Your task to perform on an android device: Open calendar and show me the third week of next month Image 0: 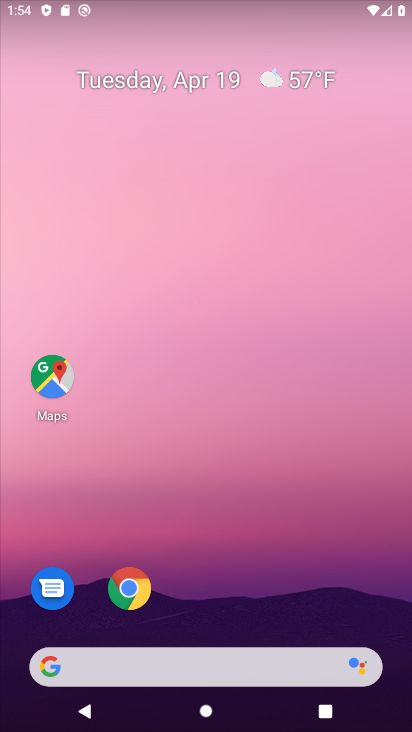
Step 0: drag from (318, 626) to (324, 104)
Your task to perform on an android device: Open calendar and show me the third week of next month Image 1: 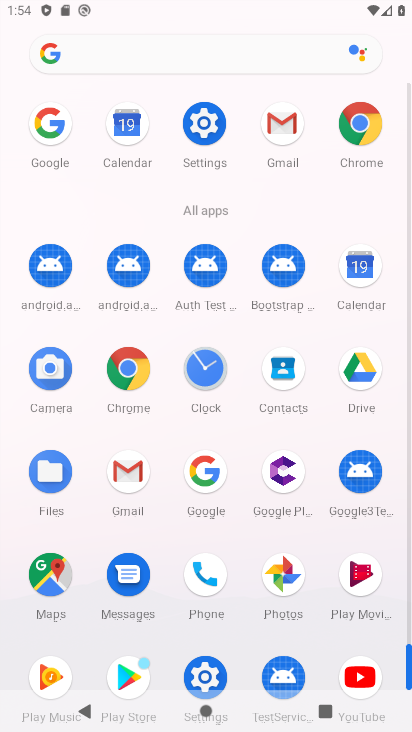
Step 1: click (355, 269)
Your task to perform on an android device: Open calendar and show me the third week of next month Image 2: 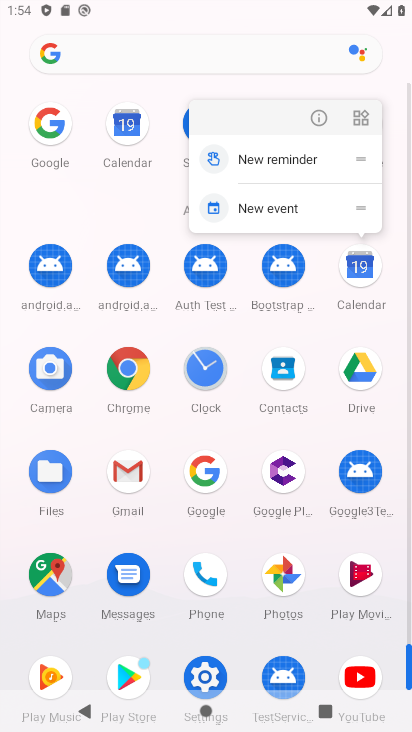
Step 2: click (355, 269)
Your task to perform on an android device: Open calendar and show me the third week of next month Image 3: 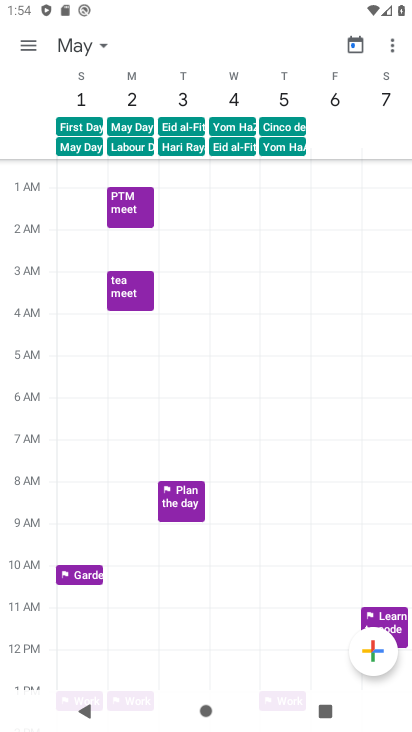
Step 3: task complete